Your task to perform on an android device: Toggle the flashlight Image 0: 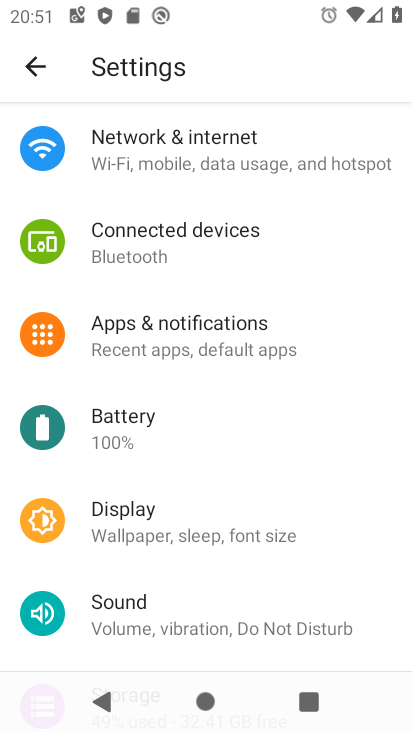
Step 0: drag from (202, 154) to (211, 564)
Your task to perform on an android device: Toggle the flashlight Image 1: 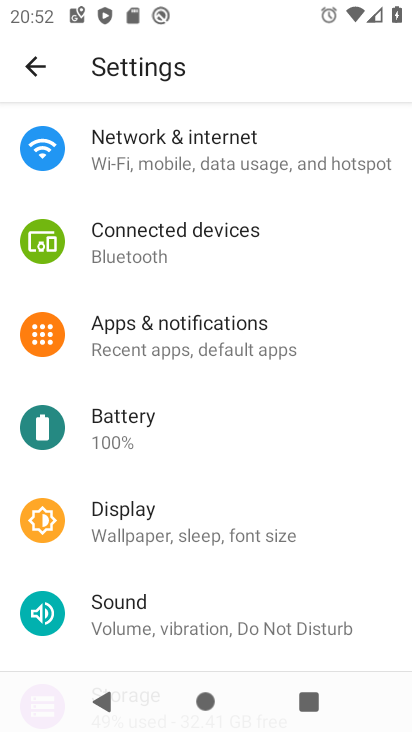
Step 1: click (36, 60)
Your task to perform on an android device: Toggle the flashlight Image 2: 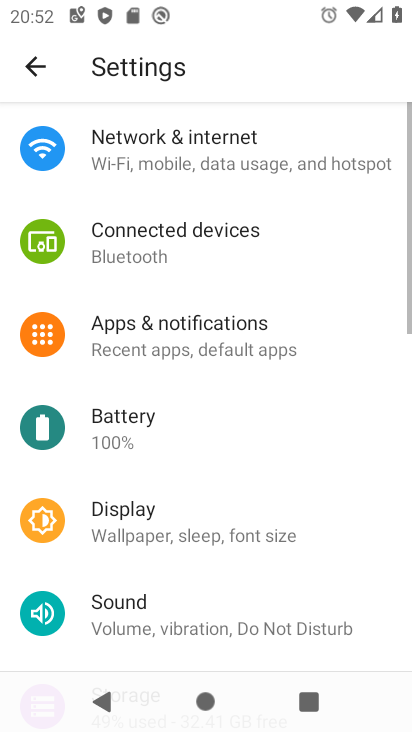
Step 2: drag from (203, 204) to (201, 507)
Your task to perform on an android device: Toggle the flashlight Image 3: 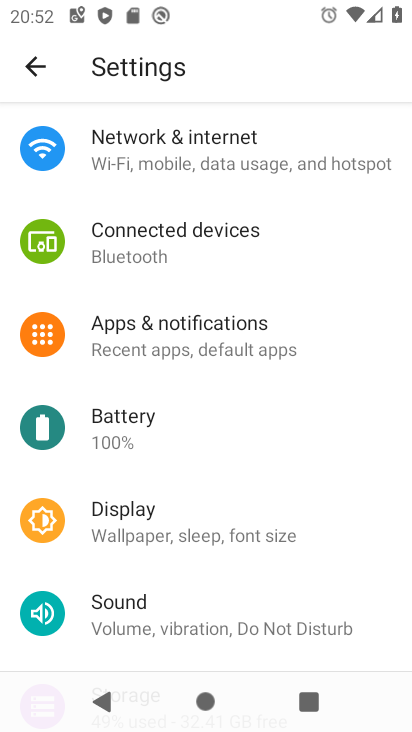
Step 3: click (37, 58)
Your task to perform on an android device: Toggle the flashlight Image 4: 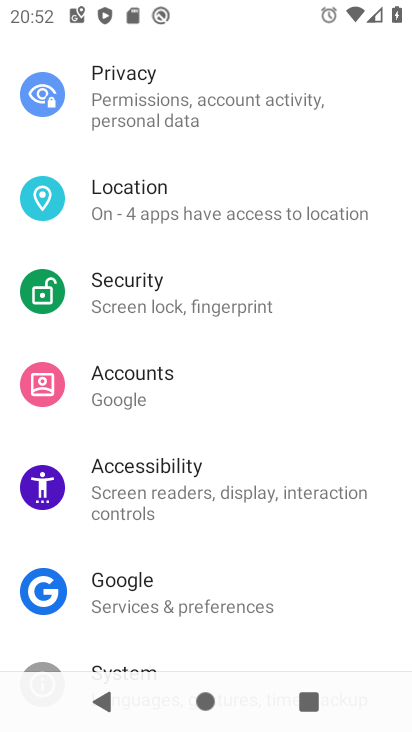
Step 4: drag from (269, 143) to (263, 698)
Your task to perform on an android device: Toggle the flashlight Image 5: 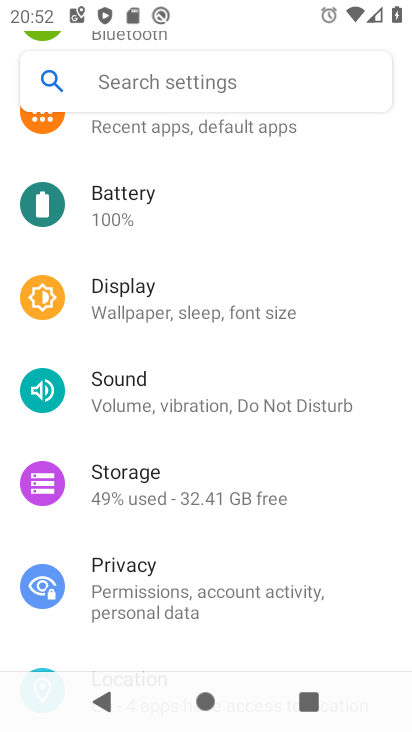
Step 5: drag from (243, 211) to (217, 557)
Your task to perform on an android device: Toggle the flashlight Image 6: 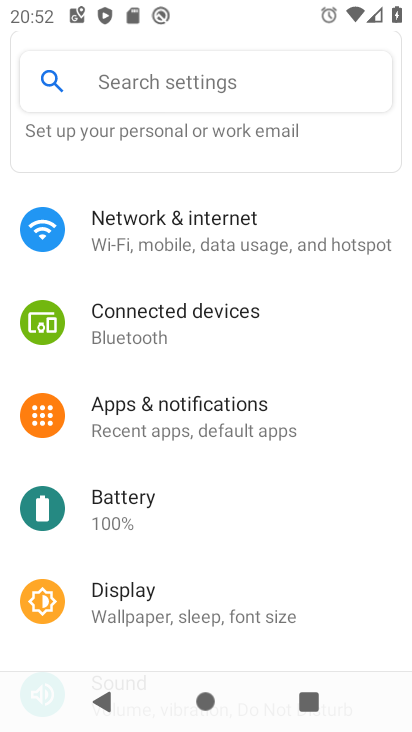
Step 6: drag from (238, 232) to (201, 656)
Your task to perform on an android device: Toggle the flashlight Image 7: 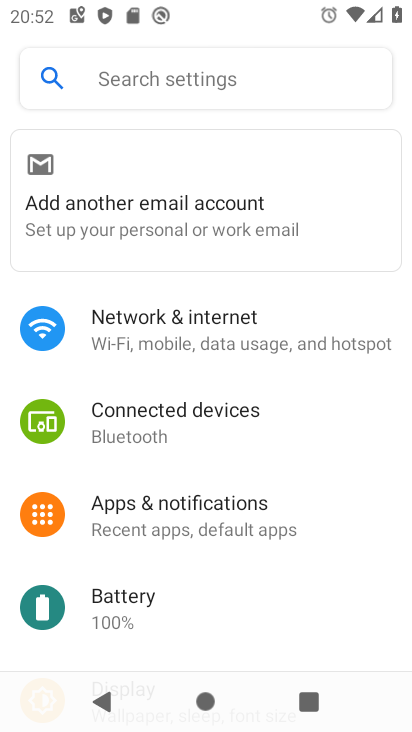
Step 7: click (257, 71)
Your task to perform on an android device: Toggle the flashlight Image 8: 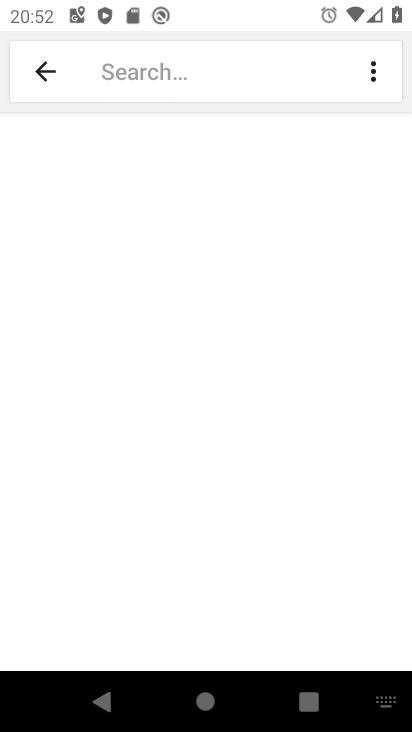
Step 8: type "Flashlight"
Your task to perform on an android device: Toggle the flashlight Image 9: 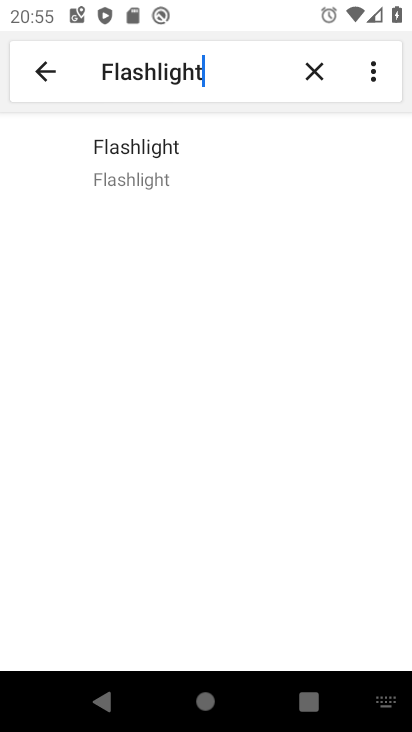
Step 9: task complete